Your task to perform on an android device: find snoozed emails in the gmail app Image 0: 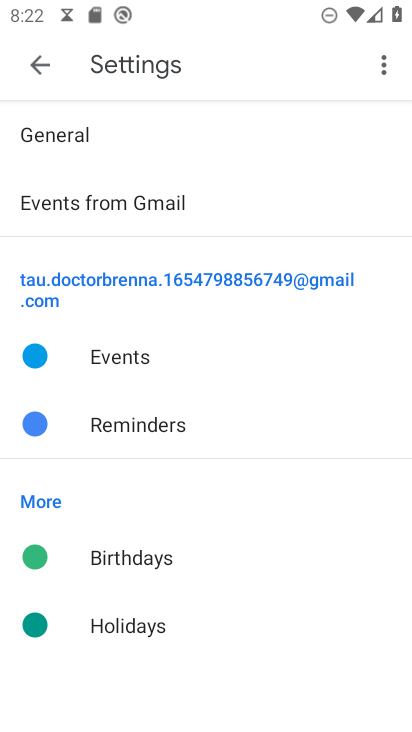
Step 0: press home button
Your task to perform on an android device: find snoozed emails in the gmail app Image 1: 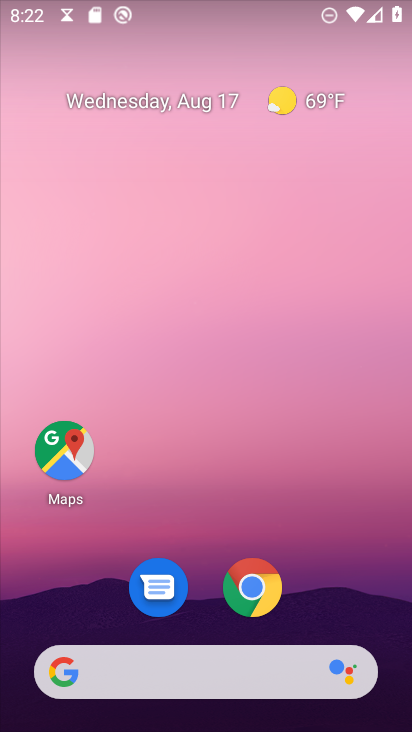
Step 1: drag from (19, 699) to (108, 298)
Your task to perform on an android device: find snoozed emails in the gmail app Image 2: 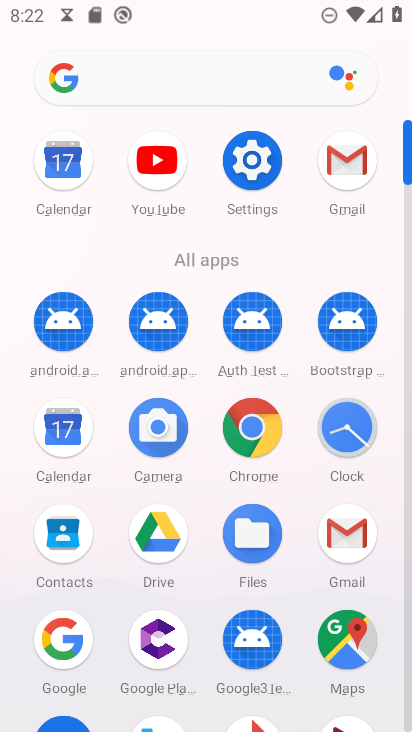
Step 2: click (349, 534)
Your task to perform on an android device: find snoozed emails in the gmail app Image 3: 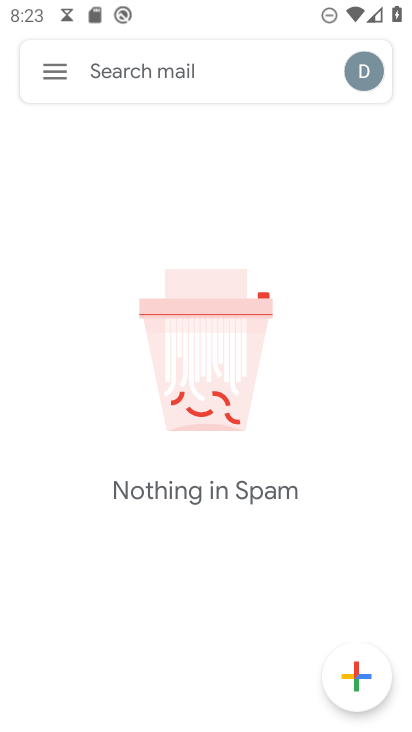
Step 3: click (47, 100)
Your task to perform on an android device: find snoozed emails in the gmail app Image 4: 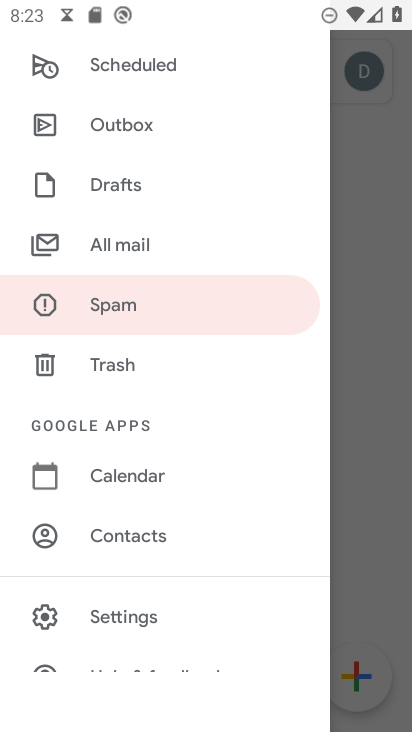
Step 4: drag from (238, 77) to (270, 234)
Your task to perform on an android device: find snoozed emails in the gmail app Image 5: 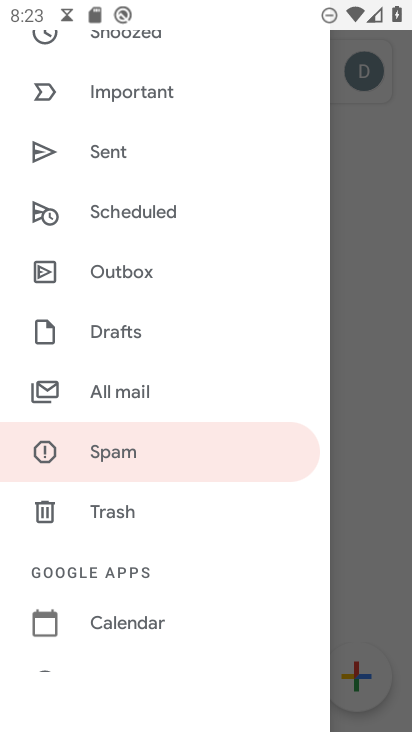
Step 5: click (148, 37)
Your task to perform on an android device: find snoozed emails in the gmail app Image 6: 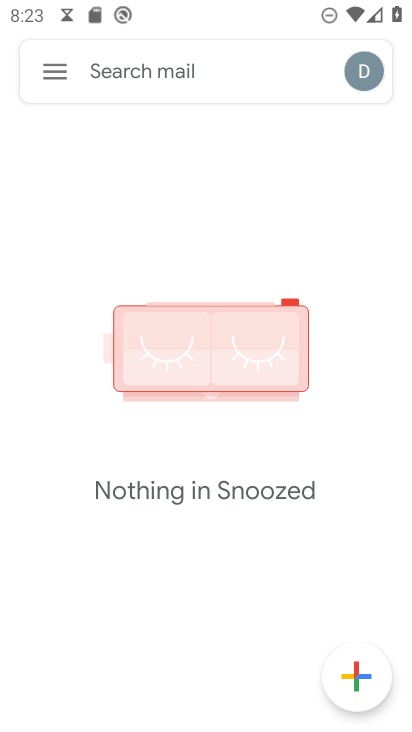
Step 6: task complete